Your task to perform on an android device: make emails show in primary in the gmail app Image 0: 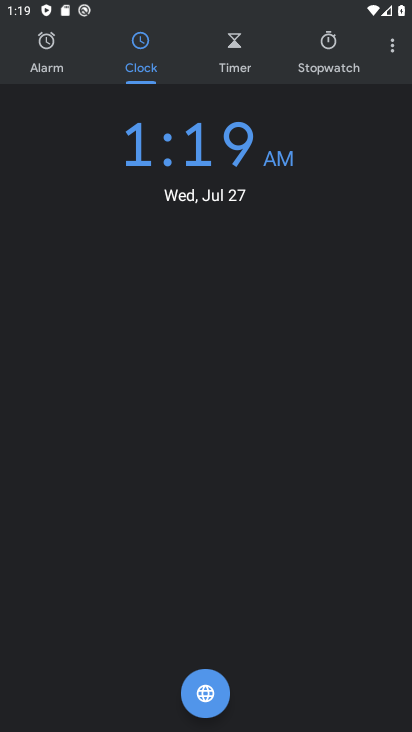
Step 0: press home button
Your task to perform on an android device: make emails show in primary in the gmail app Image 1: 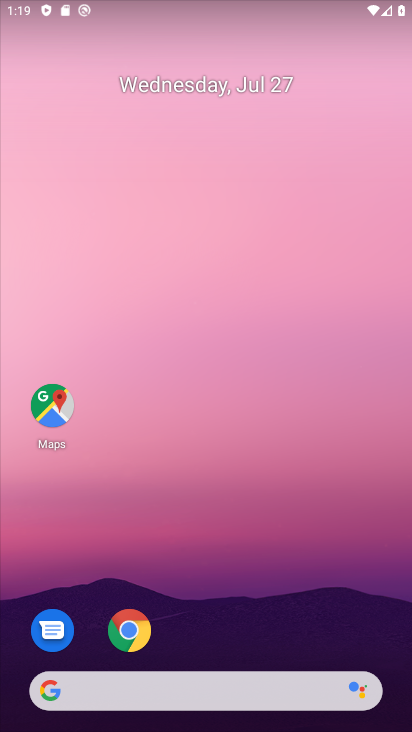
Step 1: drag from (229, 680) to (113, 37)
Your task to perform on an android device: make emails show in primary in the gmail app Image 2: 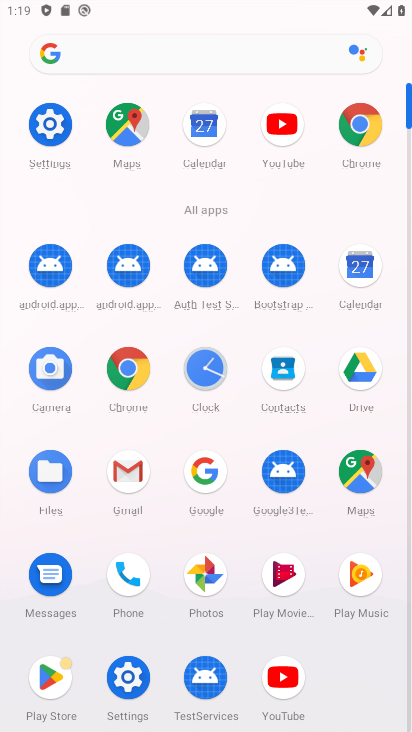
Step 2: click (118, 472)
Your task to perform on an android device: make emails show in primary in the gmail app Image 3: 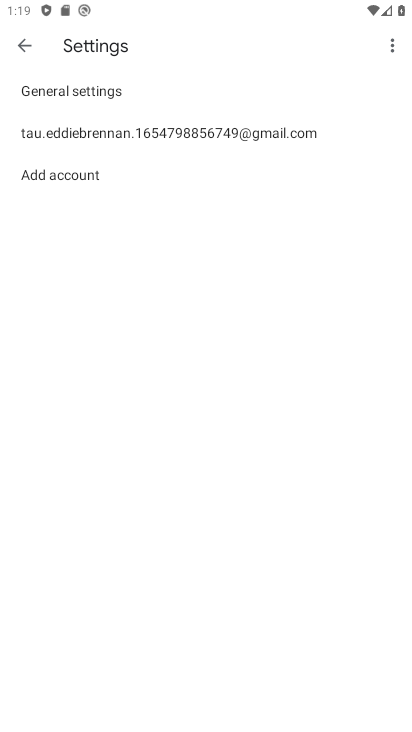
Step 3: click (82, 117)
Your task to perform on an android device: make emails show in primary in the gmail app Image 4: 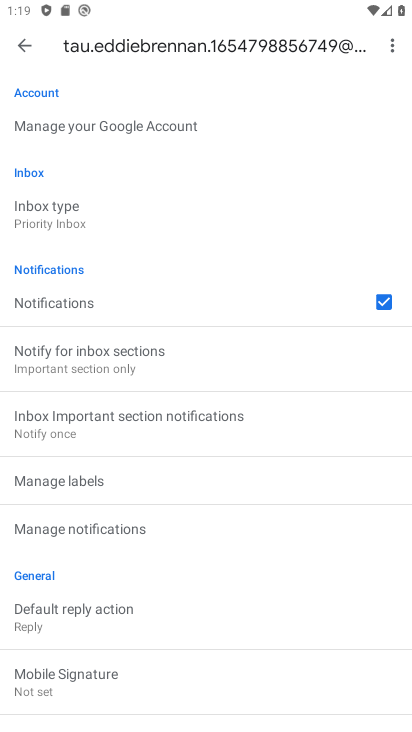
Step 4: click (78, 219)
Your task to perform on an android device: make emails show in primary in the gmail app Image 5: 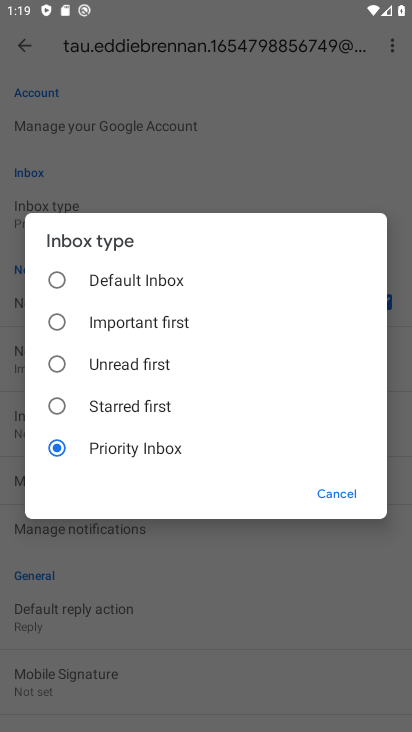
Step 5: click (131, 285)
Your task to perform on an android device: make emails show in primary in the gmail app Image 6: 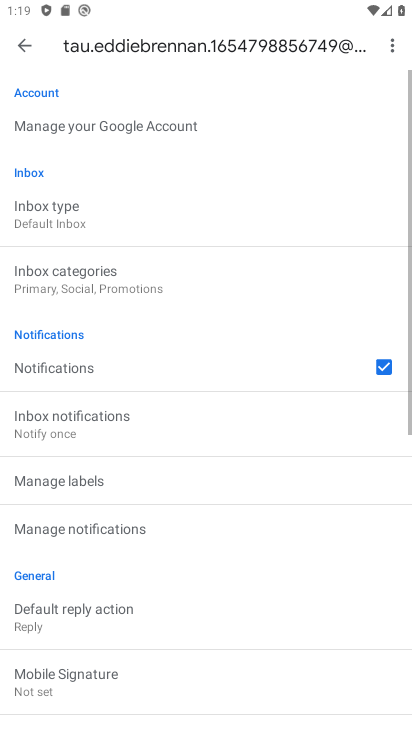
Step 6: click (68, 273)
Your task to perform on an android device: make emails show in primary in the gmail app Image 7: 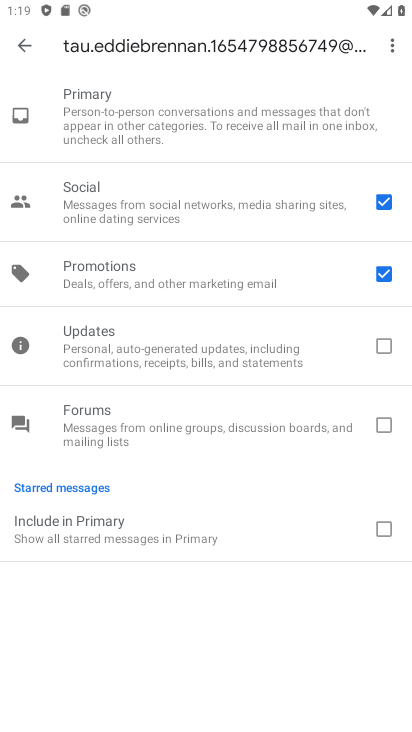
Step 7: click (354, 267)
Your task to perform on an android device: make emails show in primary in the gmail app Image 8: 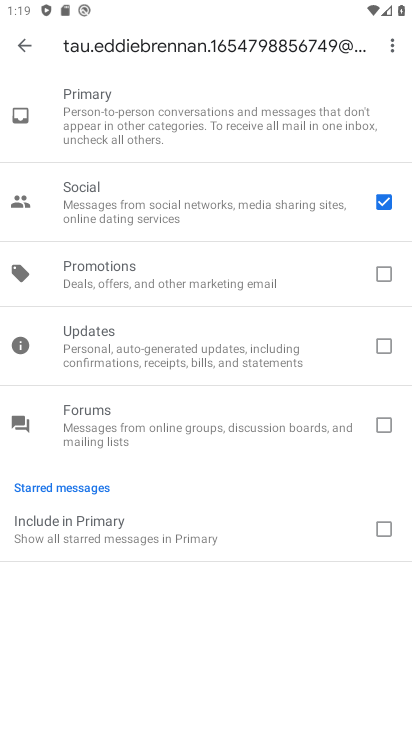
Step 8: click (315, 198)
Your task to perform on an android device: make emails show in primary in the gmail app Image 9: 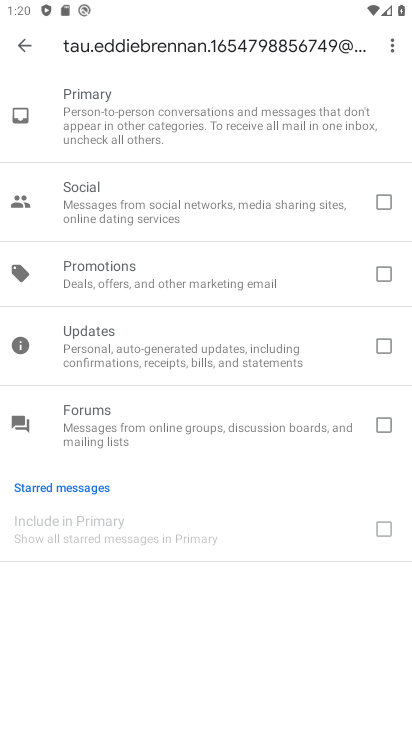
Step 9: task complete